Your task to perform on an android device: move an email to a new category in the gmail app Image 0: 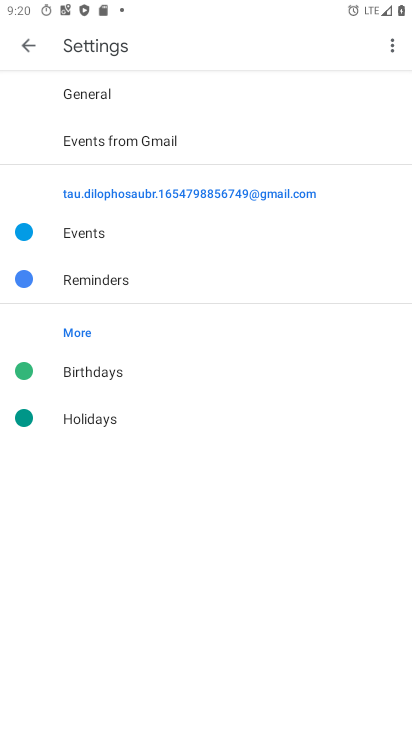
Step 0: press home button
Your task to perform on an android device: move an email to a new category in the gmail app Image 1: 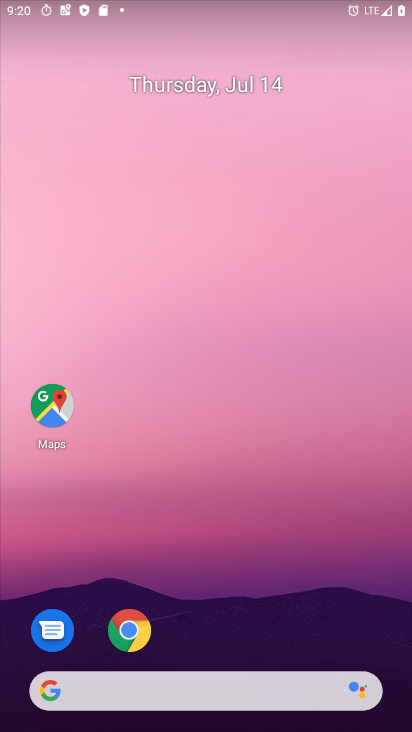
Step 1: drag from (238, 568) to (237, 487)
Your task to perform on an android device: move an email to a new category in the gmail app Image 2: 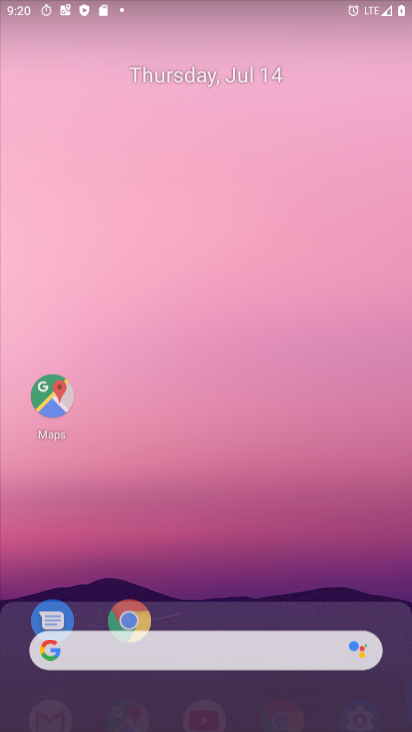
Step 2: click (233, 443)
Your task to perform on an android device: move an email to a new category in the gmail app Image 3: 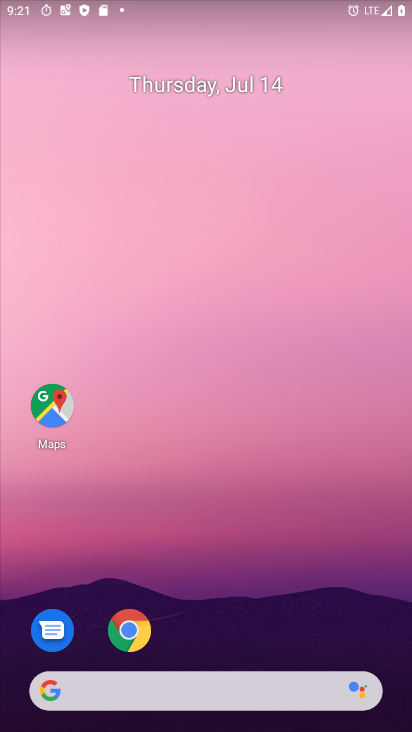
Step 3: drag from (227, 728) to (210, 195)
Your task to perform on an android device: move an email to a new category in the gmail app Image 4: 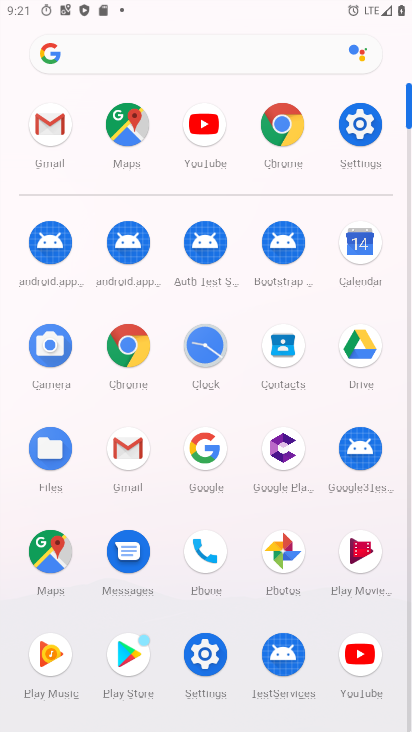
Step 4: click (131, 455)
Your task to perform on an android device: move an email to a new category in the gmail app Image 5: 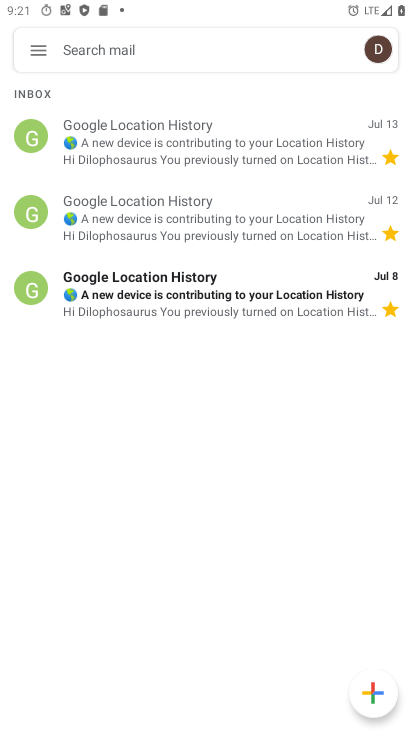
Step 5: click (128, 279)
Your task to perform on an android device: move an email to a new category in the gmail app Image 6: 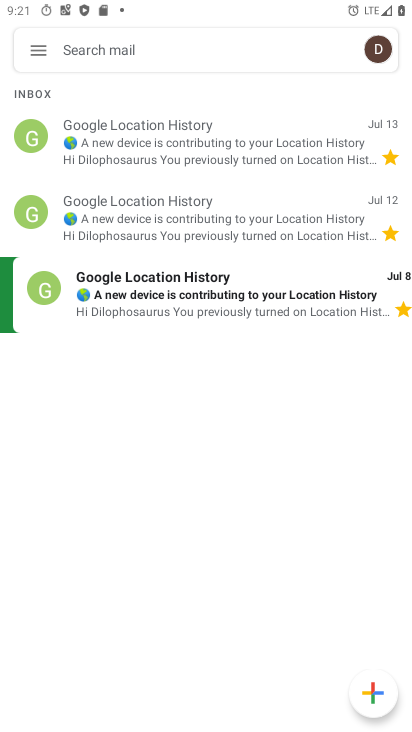
Step 6: click (140, 281)
Your task to perform on an android device: move an email to a new category in the gmail app Image 7: 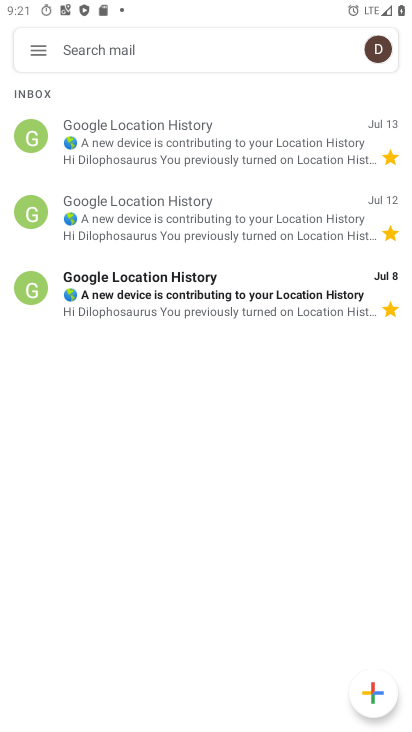
Step 7: click (197, 287)
Your task to perform on an android device: move an email to a new category in the gmail app Image 8: 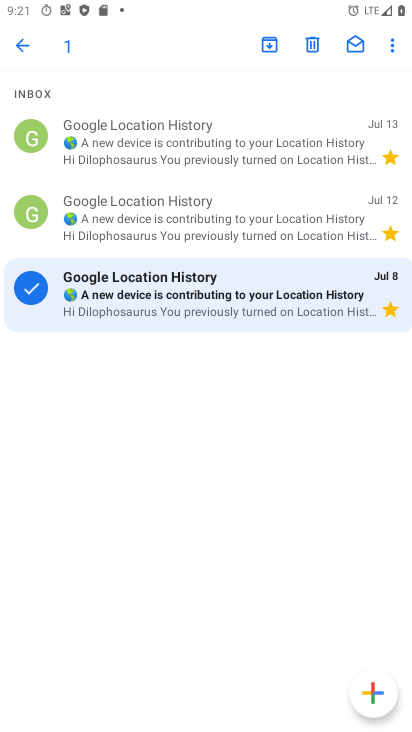
Step 8: click (394, 43)
Your task to perform on an android device: move an email to a new category in the gmail app Image 9: 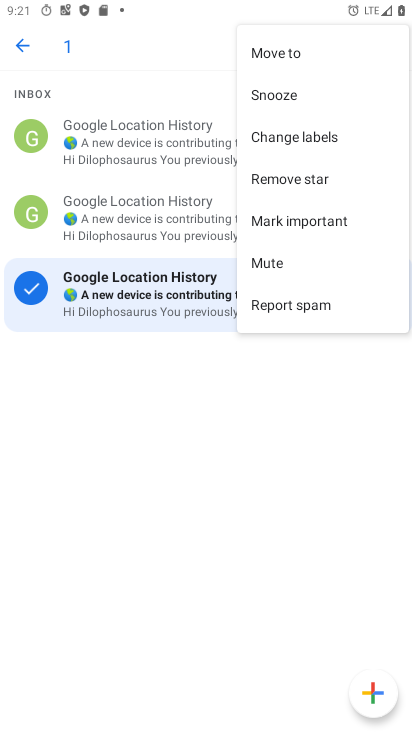
Step 9: click (273, 49)
Your task to perform on an android device: move an email to a new category in the gmail app Image 10: 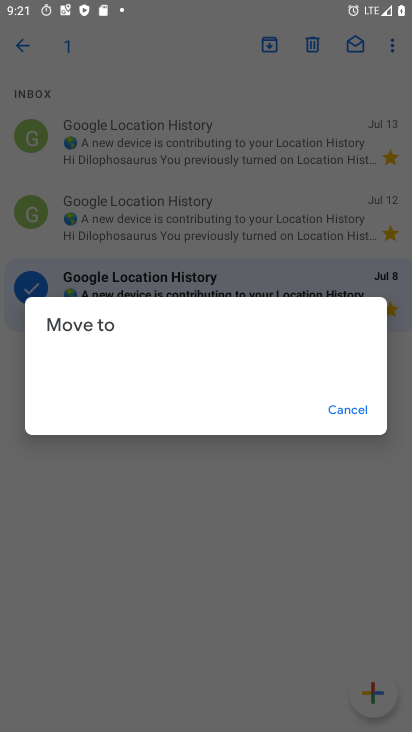
Step 10: click (345, 411)
Your task to perform on an android device: move an email to a new category in the gmail app Image 11: 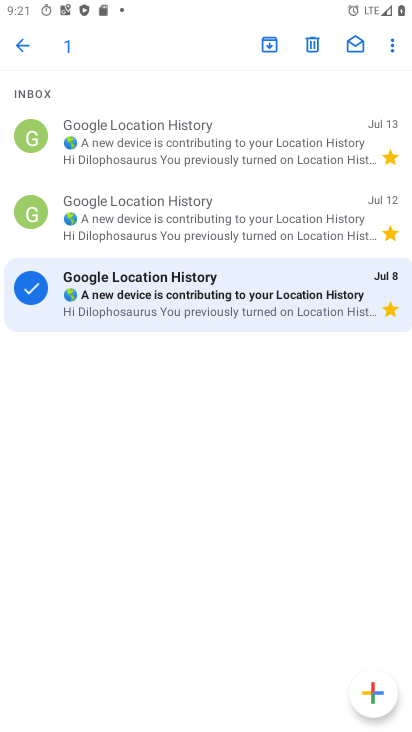
Step 11: task complete